Your task to perform on an android device: move an email to a new category in the gmail app Image 0: 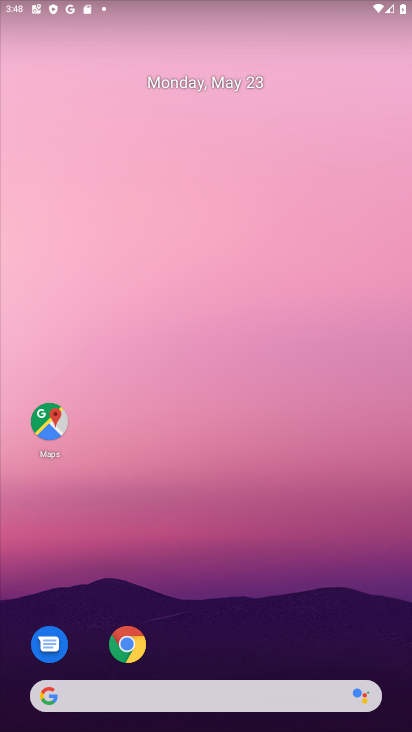
Step 0: drag from (226, 641) to (196, 178)
Your task to perform on an android device: move an email to a new category in the gmail app Image 1: 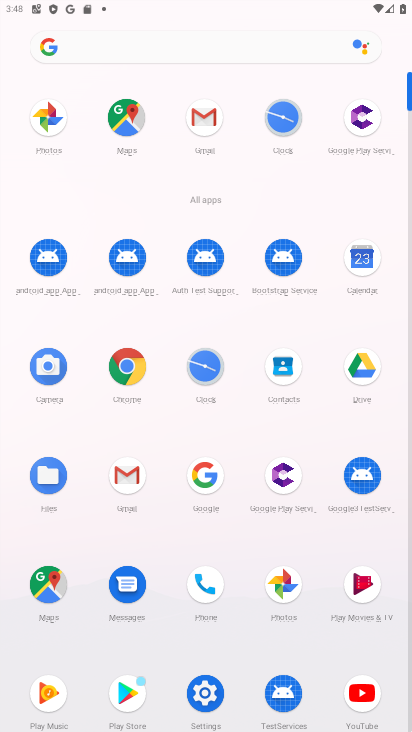
Step 1: click (208, 115)
Your task to perform on an android device: move an email to a new category in the gmail app Image 2: 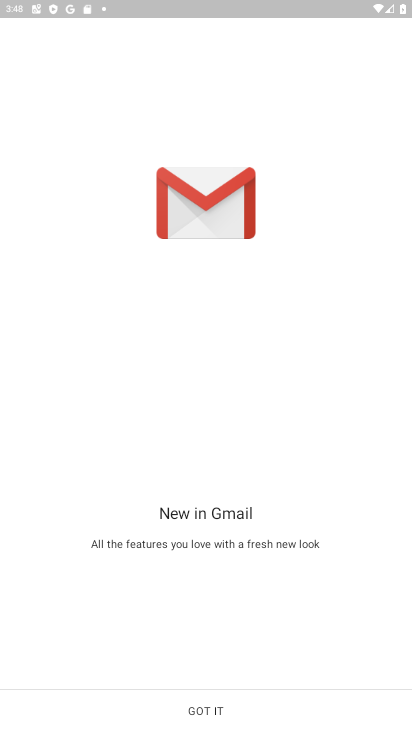
Step 2: click (212, 717)
Your task to perform on an android device: move an email to a new category in the gmail app Image 3: 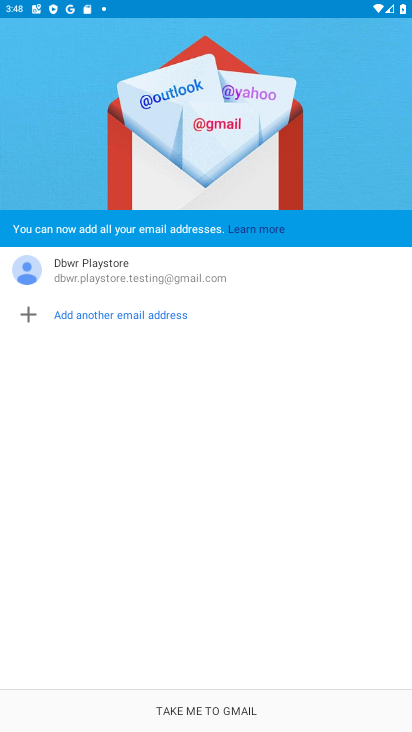
Step 3: click (223, 710)
Your task to perform on an android device: move an email to a new category in the gmail app Image 4: 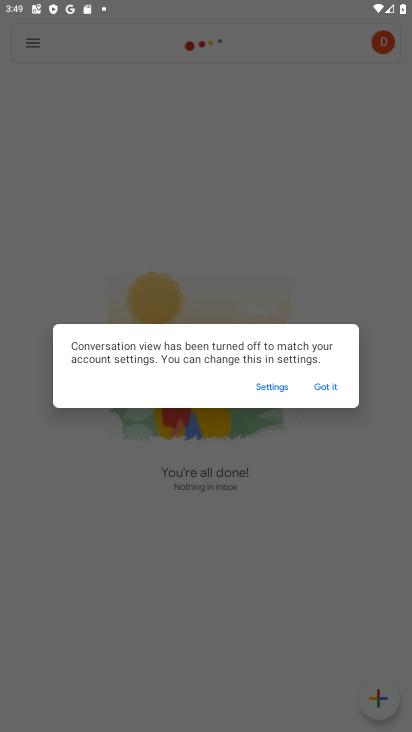
Step 4: click (327, 390)
Your task to perform on an android device: move an email to a new category in the gmail app Image 5: 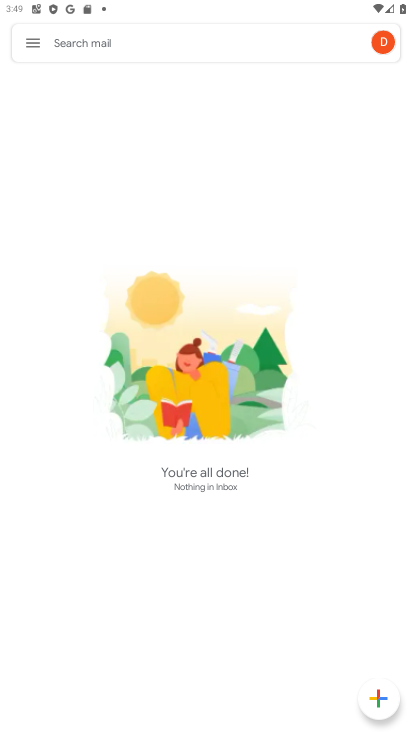
Step 5: task complete